Your task to perform on an android device: toggle pop-ups in chrome Image 0: 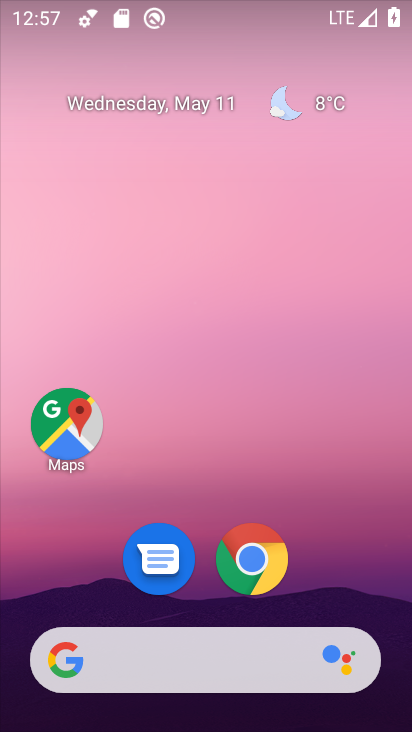
Step 0: click (248, 561)
Your task to perform on an android device: toggle pop-ups in chrome Image 1: 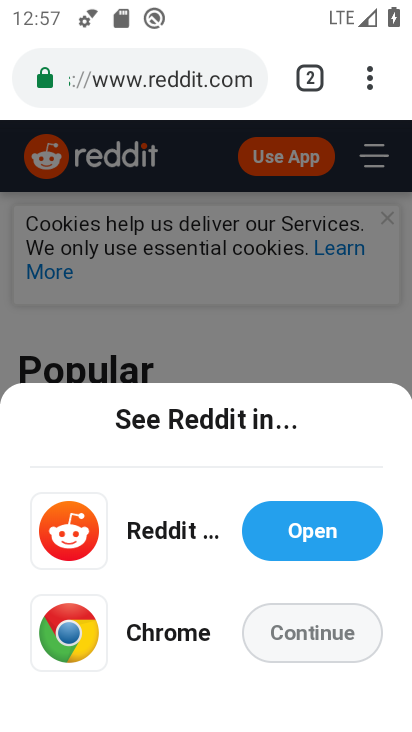
Step 1: click (369, 80)
Your task to perform on an android device: toggle pop-ups in chrome Image 2: 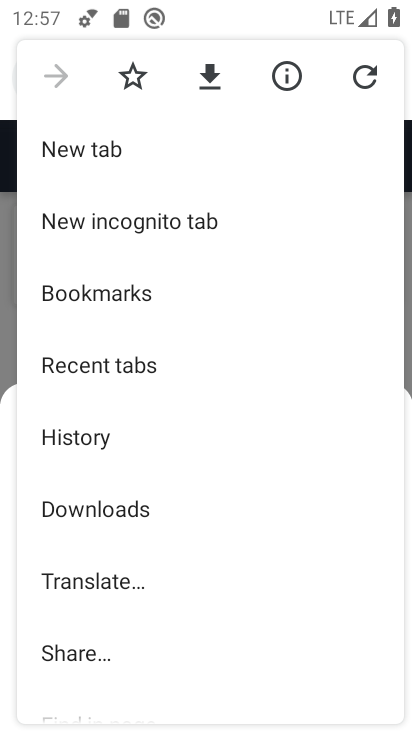
Step 2: drag from (145, 656) to (160, 194)
Your task to perform on an android device: toggle pop-ups in chrome Image 3: 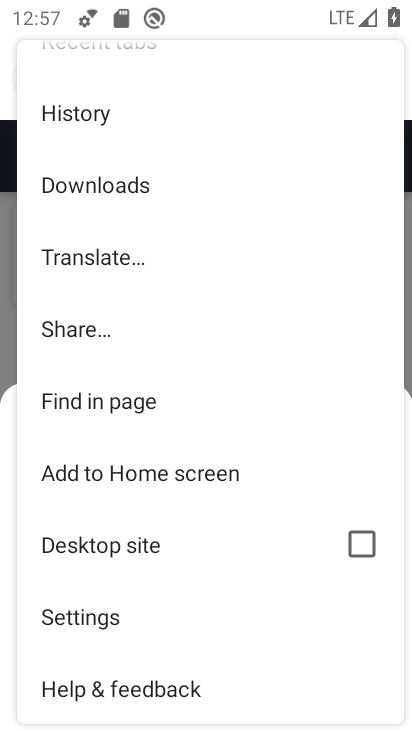
Step 3: click (105, 611)
Your task to perform on an android device: toggle pop-ups in chrome Image 4: 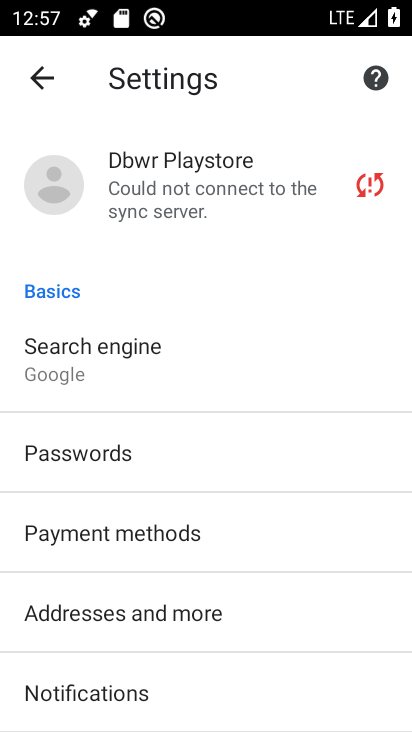
Step 4: drag from (246, 663) to (245, 272)
Your task to perform on an android device: toggle pop-ups in chrome Image 5: 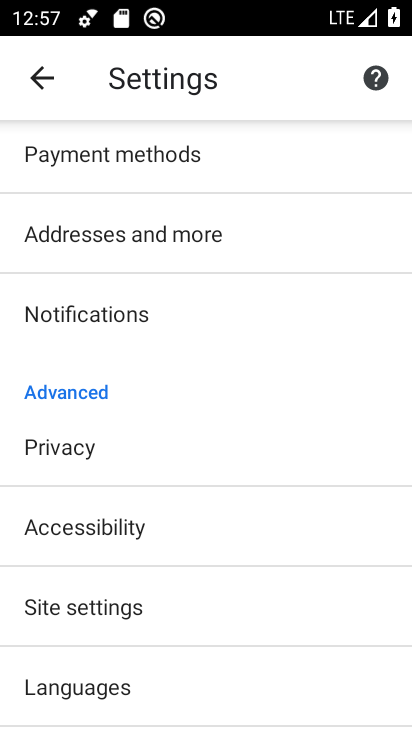
Step 5: drag from (173, 696) to (180, 379)
Your task to perform on an android device: toggle pop-ups in chrome Image 6: 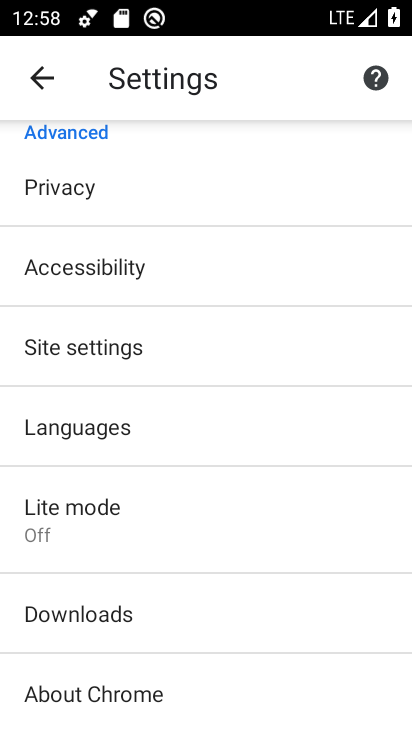
Step 6: click (78, 347)
Your task to perform on an android device: toggle pop-ups in chrome Image 7: 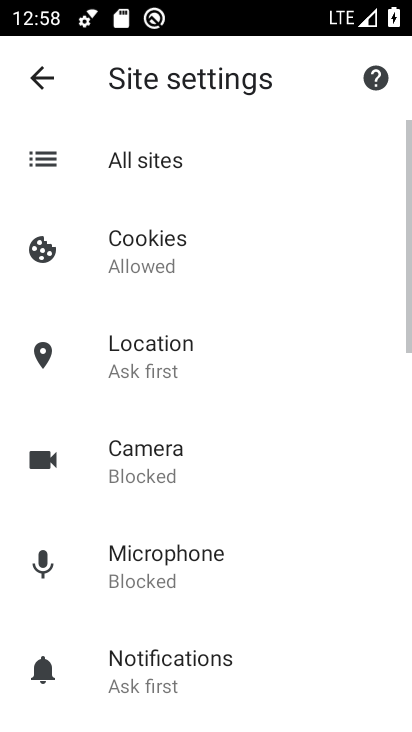
Step 7: drag from (192, 657) to (167, 351)
Your task to perform on an android device: toggle pop-ups in chrome Image 8: 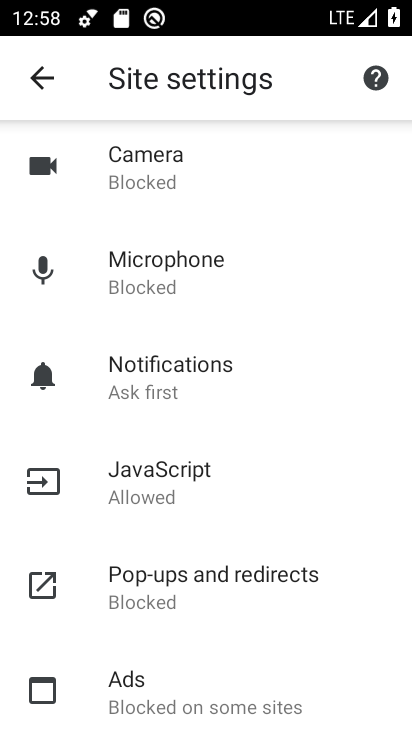
Step 8: drag from (190, 675) to (198, 369)
Your task to perform on an android device: toggle pop-ups in chrome Image 9: 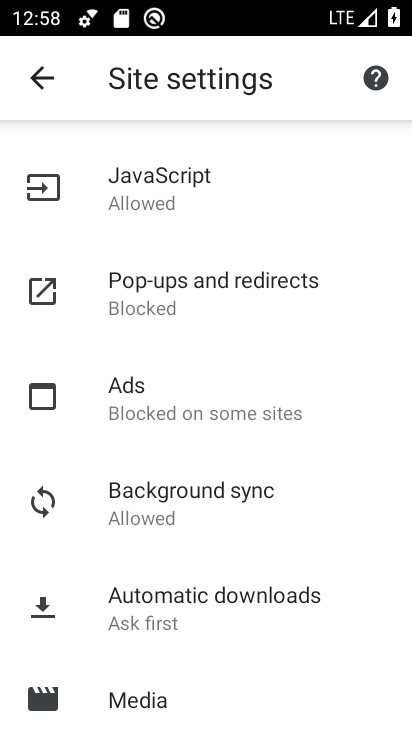
Step 9: drag from (255, 633) to (218, 304)
Your task to perform on an android device: toggle pop-ups in chrome Image 10: 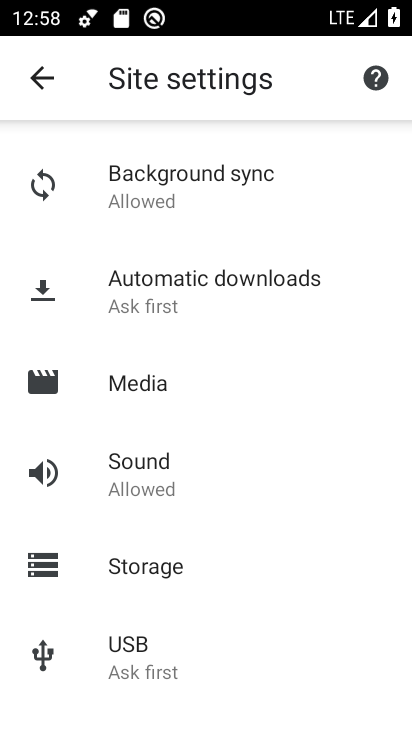
Step 10: drag from (193, 652) to (179, 311)
Your task to perform on an android device: toggle pop-ups in chrome Image 11: 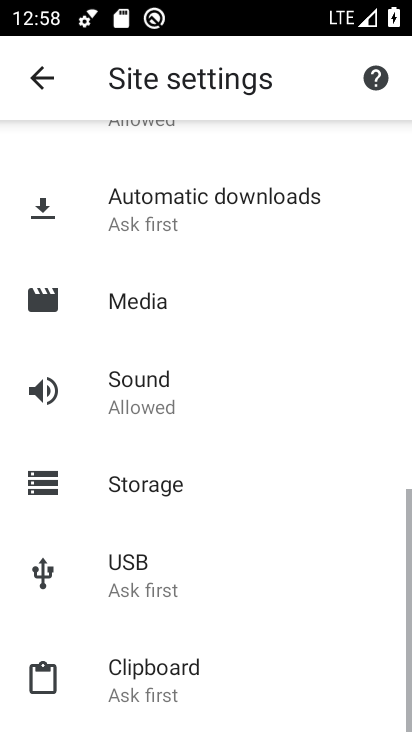
Step 11: drag from (214, 233) to (242, 663)
Your task to perform on an android device: toggle pop-ups in chrome Image 12: 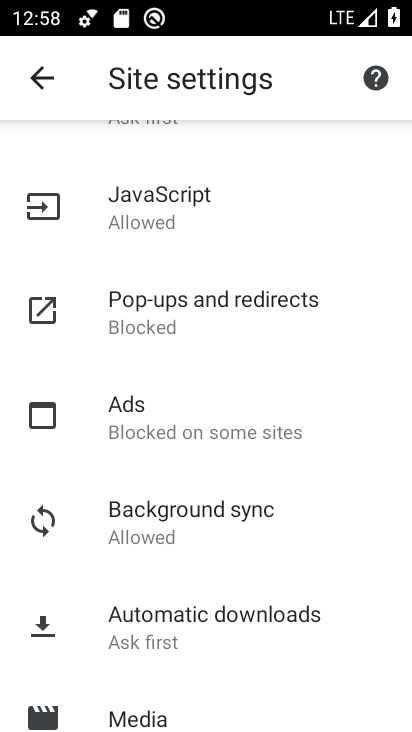
Step 12: click (196, 304)
Your task to perform on an android device: toggle pop-ups in chrome Image 13: 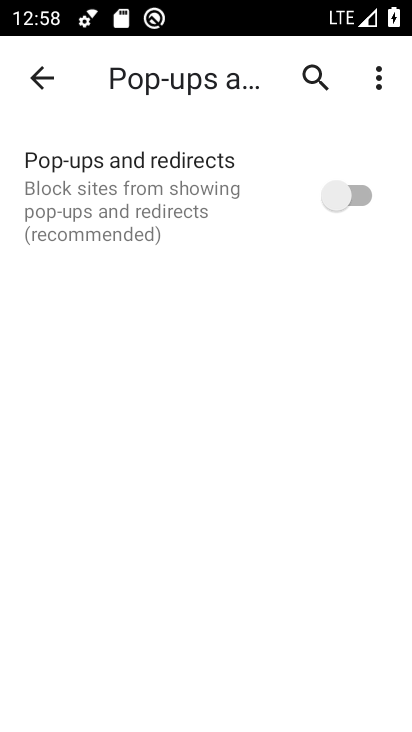
Step 13: click (348, 192)
Your task to perform on an android device: toggle pop-ups in chrome Image 14: 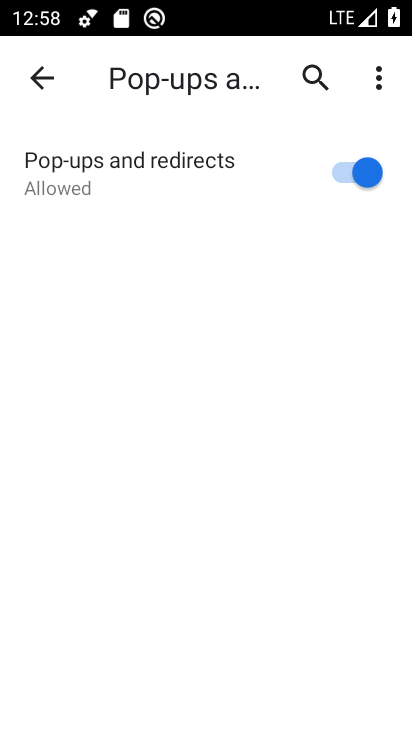
Step 14: task complete